Your task to perform on an android device: Open Reddit.com Image 0: 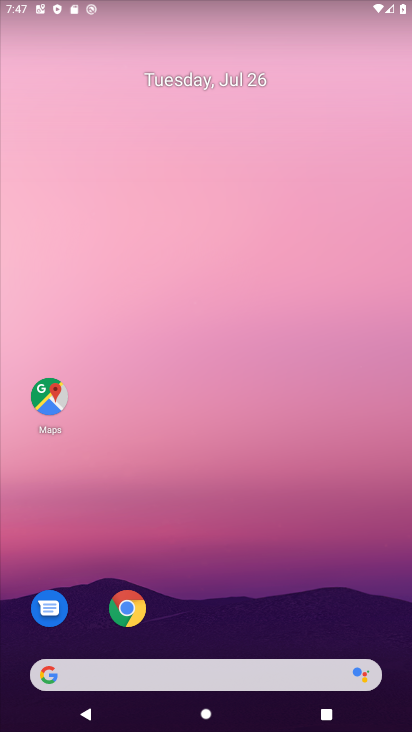
Step 0: click (82, 672)
Your task to perform on an android device: Open Reddit.com Image 1: 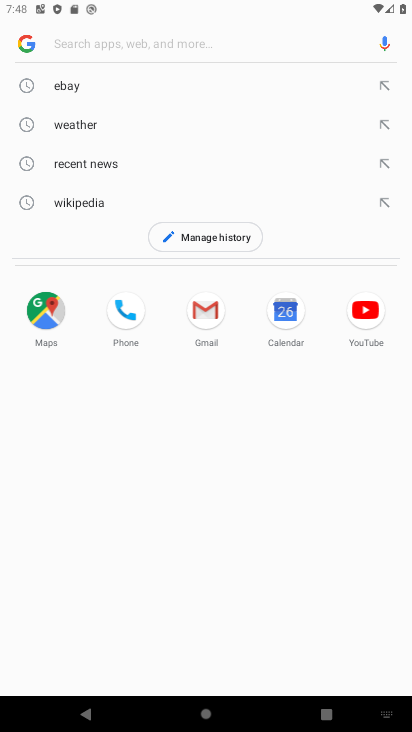
Step 1: type "Reddit.com"
Your task to perform on an android device: Open Reddit.com Image 2: 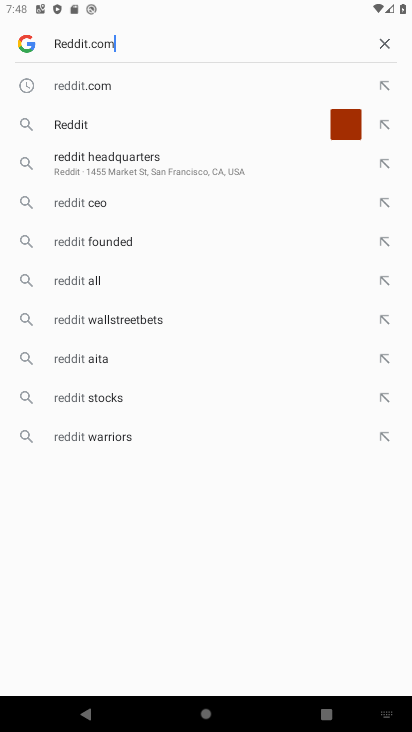
Step 2: type ""
Your task to perform on an android device: Open Reddit.com Image 3: 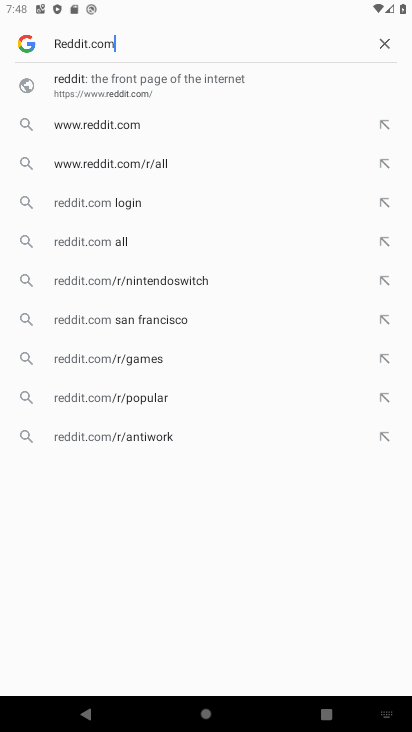
Step 3: click (106, 120)
Your task to perform on an android device: Open Reddit.com Image 4: 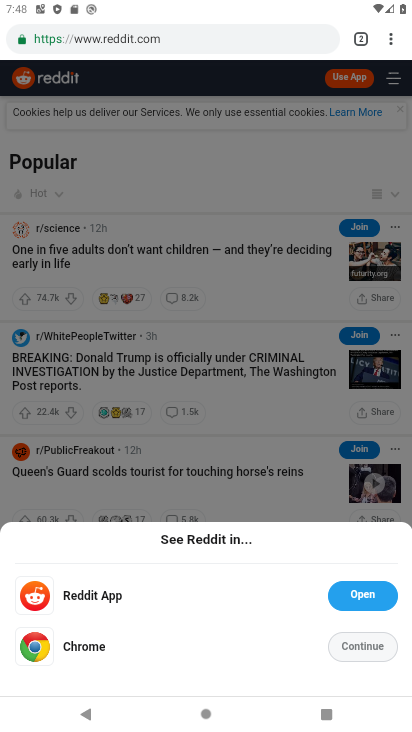
Step 4: click (376, 651)
Your task to perform on an android device: Open Reddit.com Image 5: 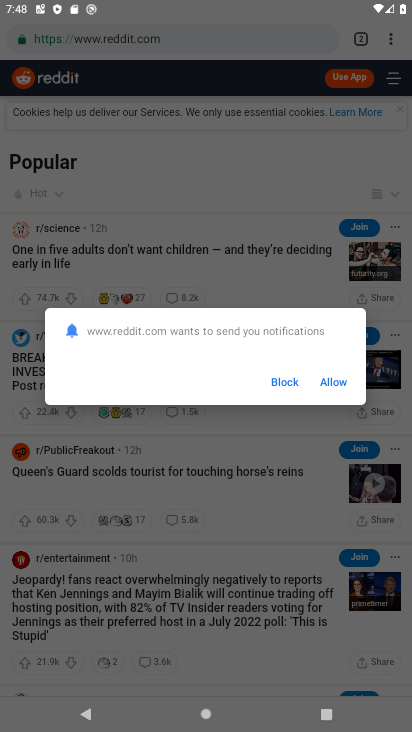
Step 5: task complete